Your task to perform on an android device: Go to Google maps Image 0: 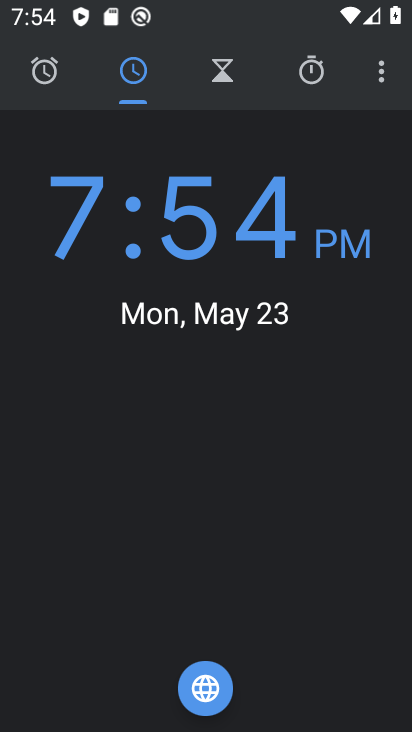
Step 0: press home button
Your task to perform on an android device: Go to Google maps Image 1: 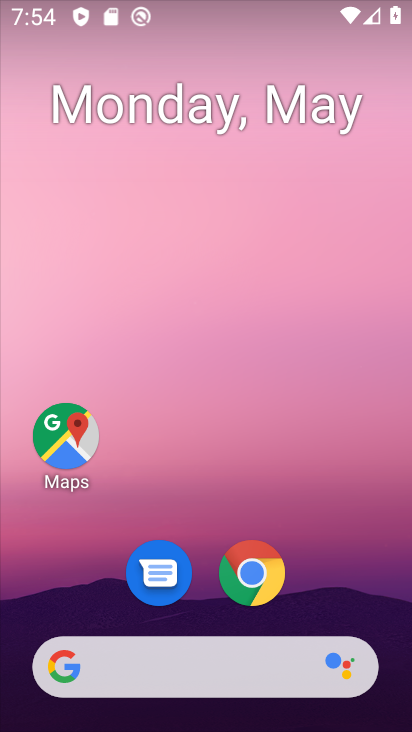
Step 1: click (234, 575)
Your task to perform on an android device: Go to Google maps Image 2: 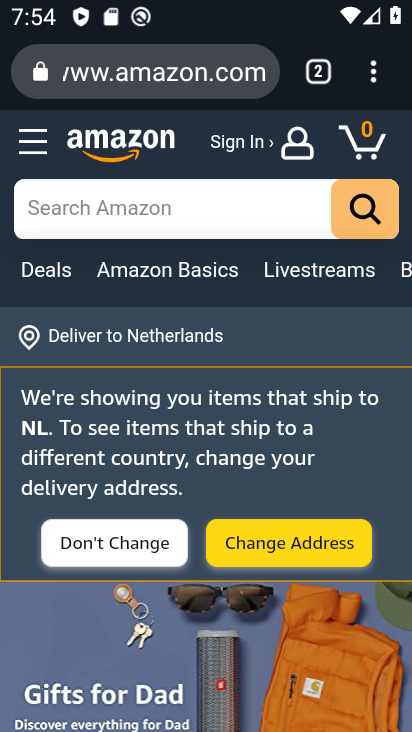
Step 2: task complete